Your task to perform on an android device: Open the stopwatch Image 0: 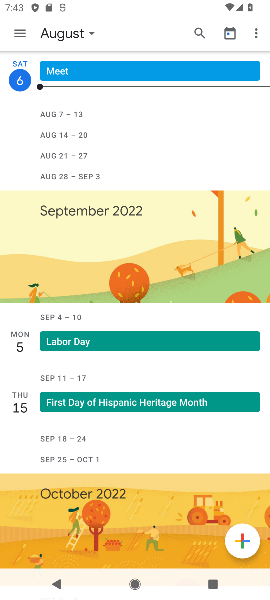
Step 0: press home button
Your task to perform on an android device: Open the stopwatch Image 1: 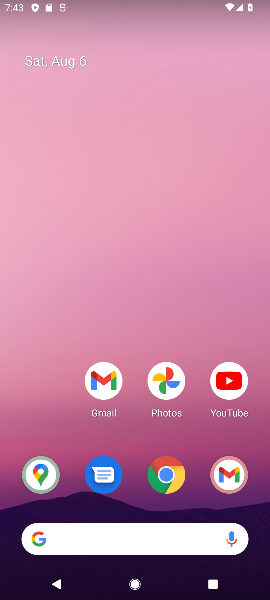
Step 1: drag from (122, 440) to (144, 52)
Your task to perform on an android device: Open the stopwatch Image 2: 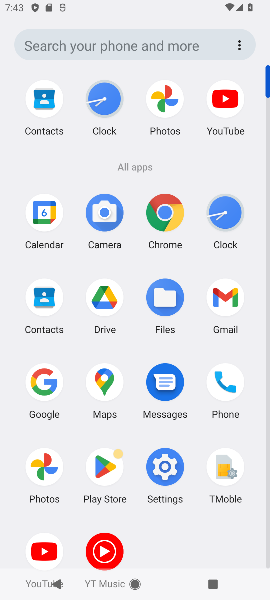
Step 2: click (213, 218)
Your task to perform on an android device: Open the stopwatch Image 3: 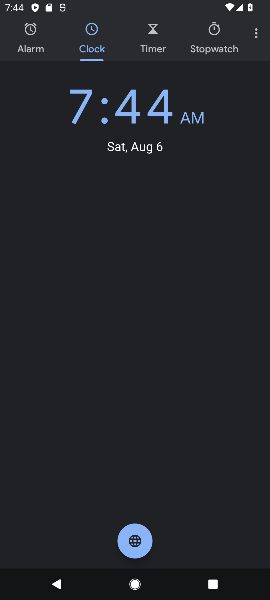
Step 3: click (196, 26)
Your task to perform on an android device: Open the stopwatch Image 4: 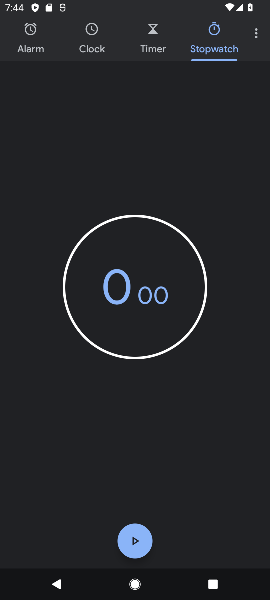
Step 4: task complete